Your task to perform on an android device: turn off location Image 0: 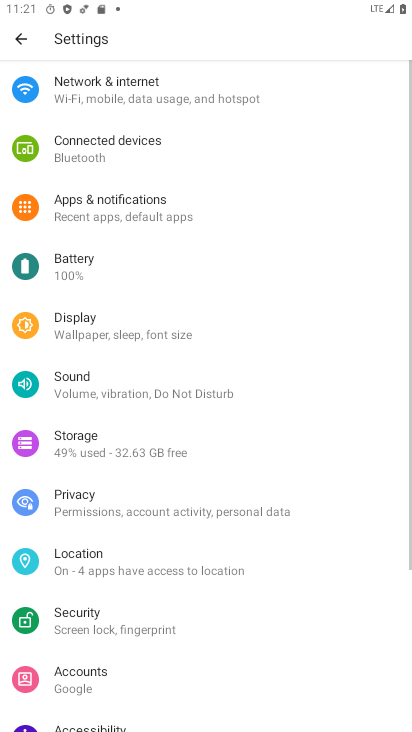
Step 0: click (141, 567)
Your task to perform on an android device: turn off location Image 1: 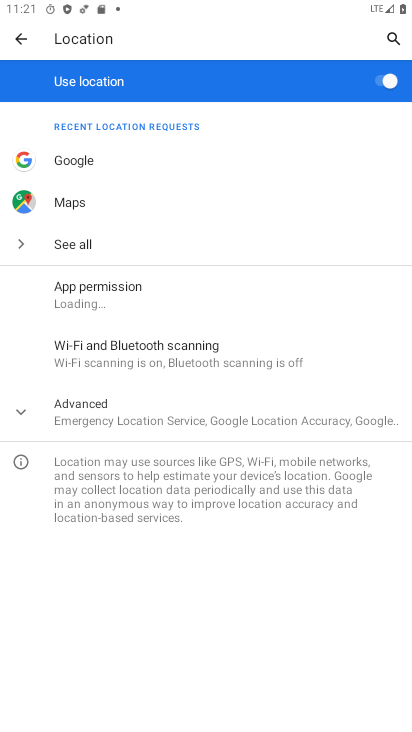
Step 1: click (392, 85)
Your task to perform on an android device: turn off location Image 2: 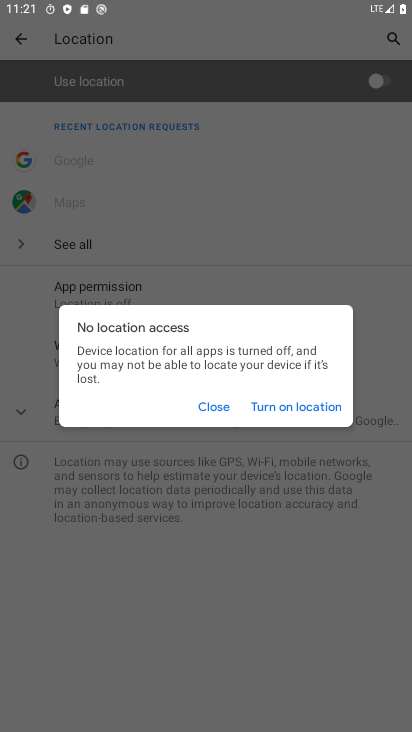
Step 2: click (223, 409)
Your task to perform on an android device: turn off location Image 3: 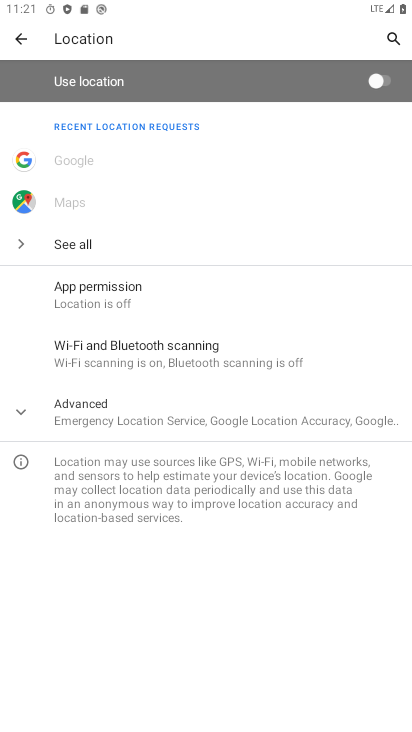
Step 3: task complete